Your task to perform on an android device: uninstall "Skype" Image 0: 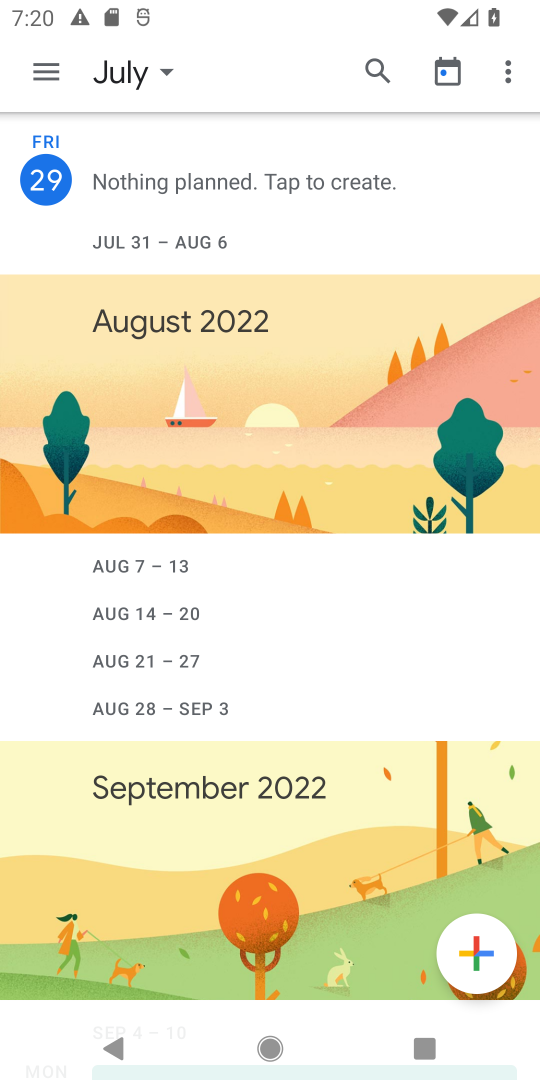
Step 0: press back button
Your task to perform on an android device: uninstall "Skype" Image 1: 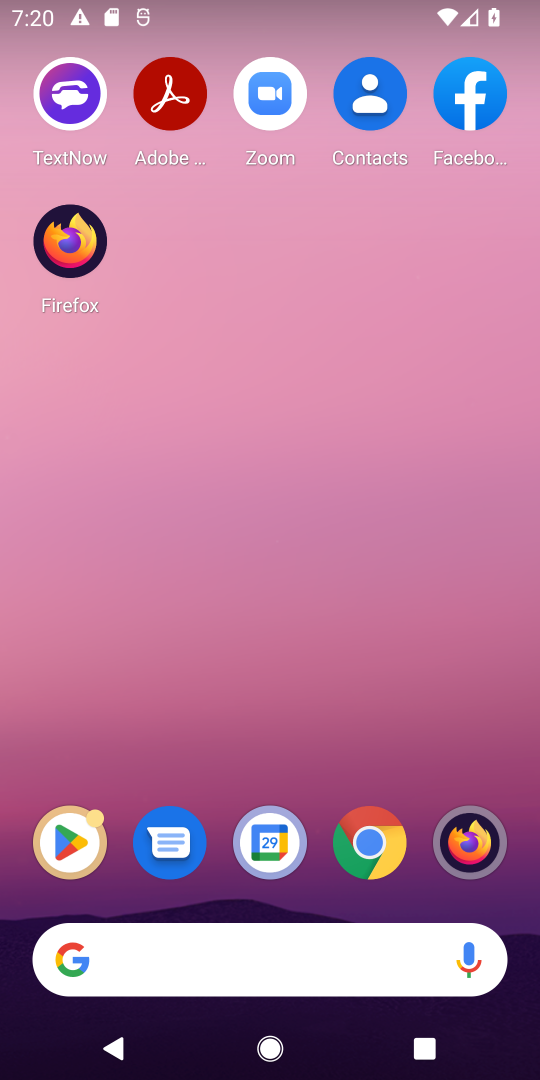
Step 1: click (313, 297)
Your task to perform on an android device: uninstall "Skype" Image 2: 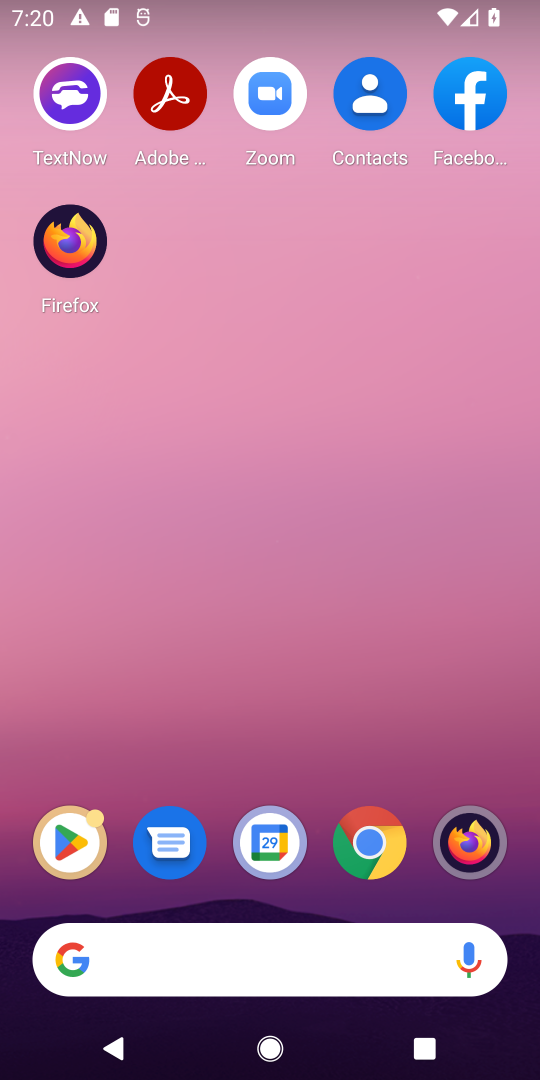
Step 2: drag from (402, 777) to (386, 352)
Your task to perform on an android device: uninstall "Skype" Image 3: 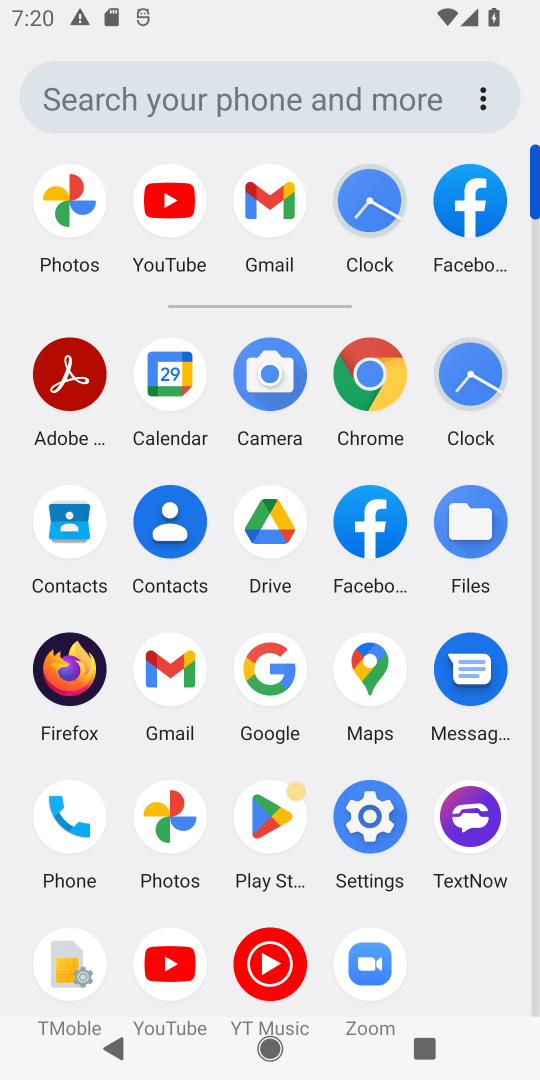
Step 3: click (260, 813)
Your task to perform on an android device: uninstall "Skype" Image 4: 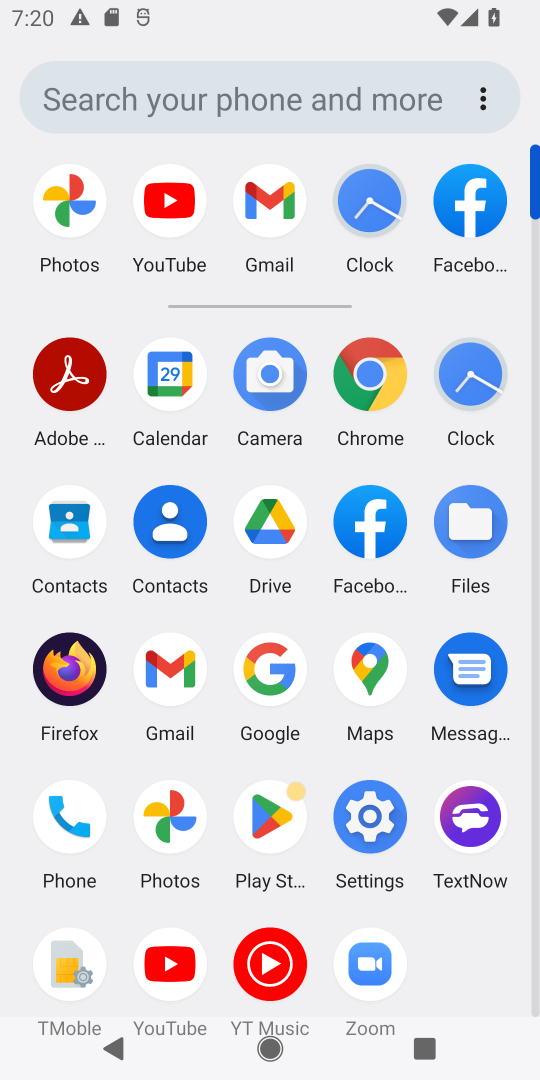
Step 4: click (264, 806)
Your task to perform on an android device: uninstall "Skype" Image 5: 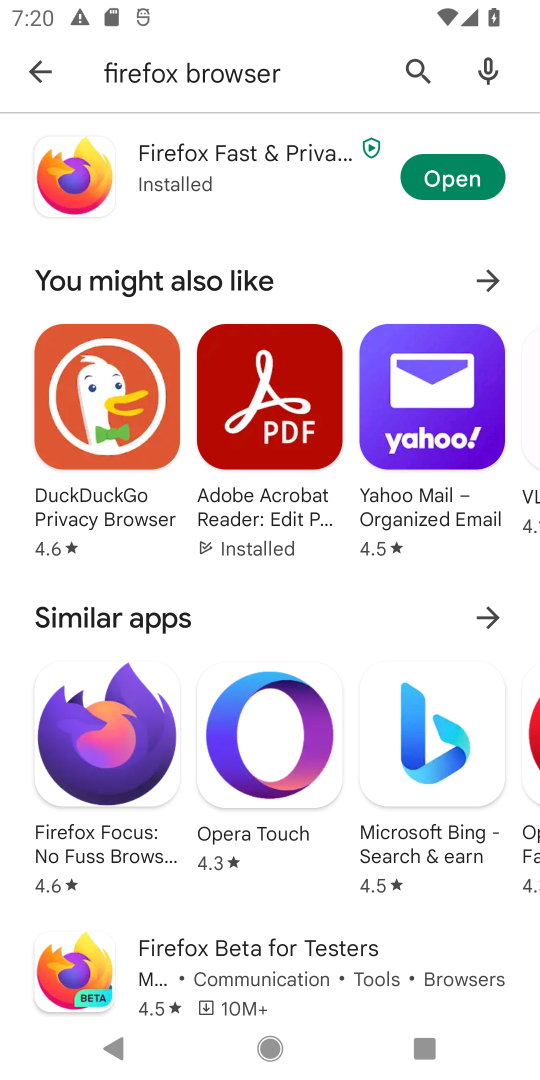
Step 5: click (37, 73)
Your task to perform on an android device: uninstall "Skype" Image 6: 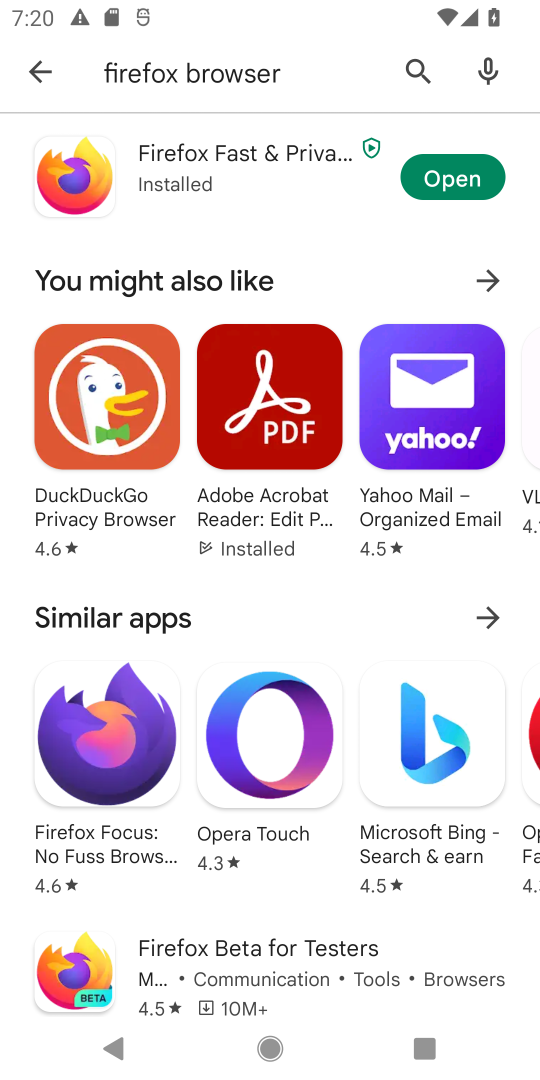
Step 6: click (33, 69)
Your task to perform on an android device: uninstall "Skype" Image 7: 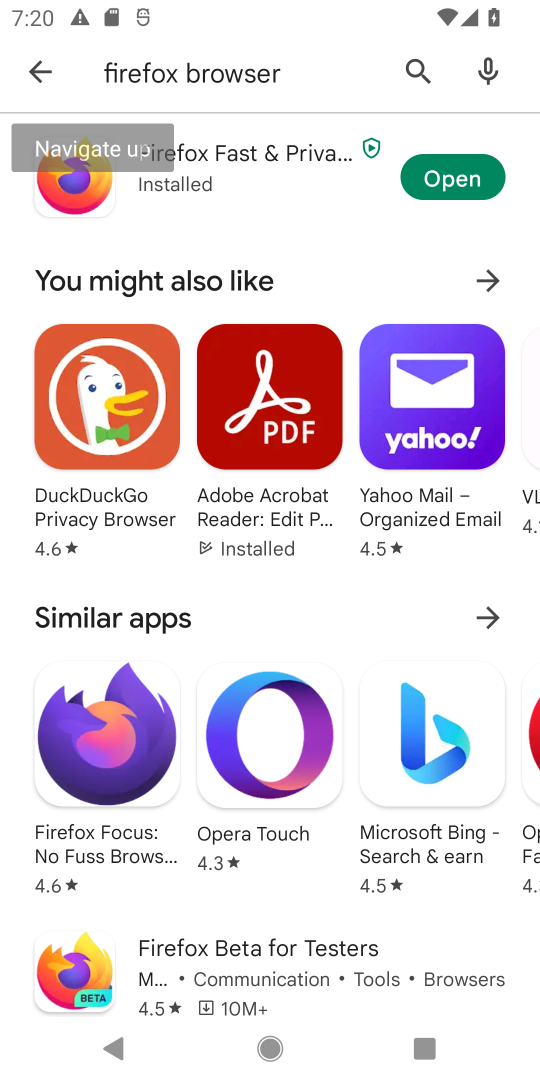
Step 7: click (286, 65)
Your task to perform on an android device: uninstall "Skype" Image 8: 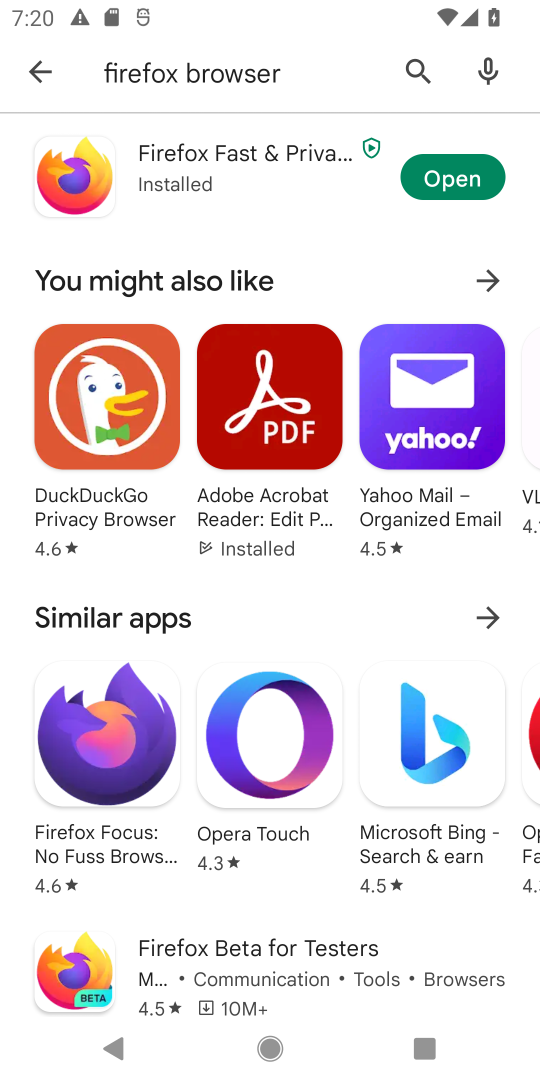
Step 8: click (281, 69)
Your task to perform on an android device: uninstall "Skype" Image 9: 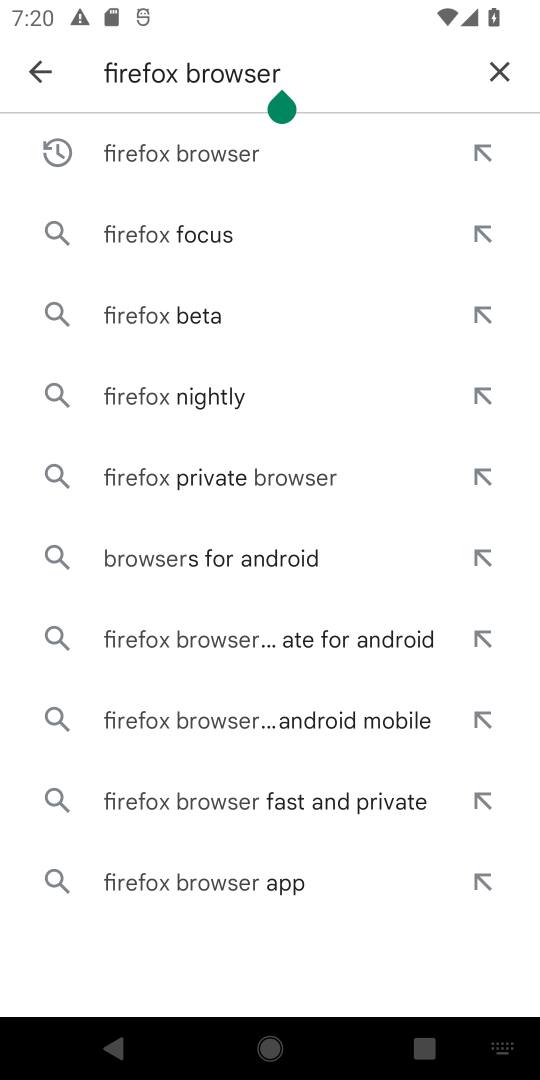
Step 9: click (488, 54)
Your task to perform on an android device: uninstall "Skype" Image 10: 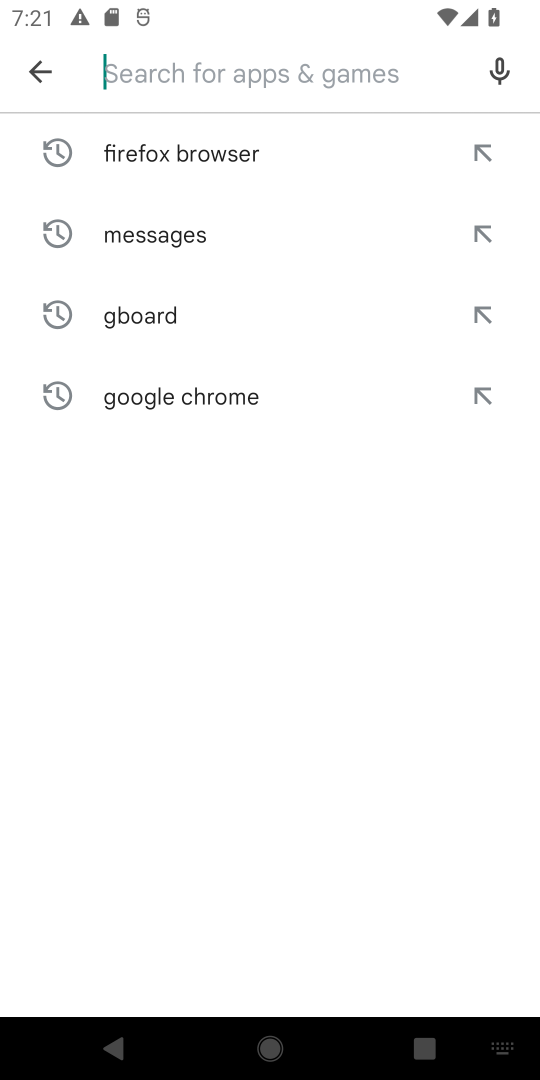
Step 10: type "uninstall skype"
Your task to perform on an android device: uninstall "Skype" Image 11: 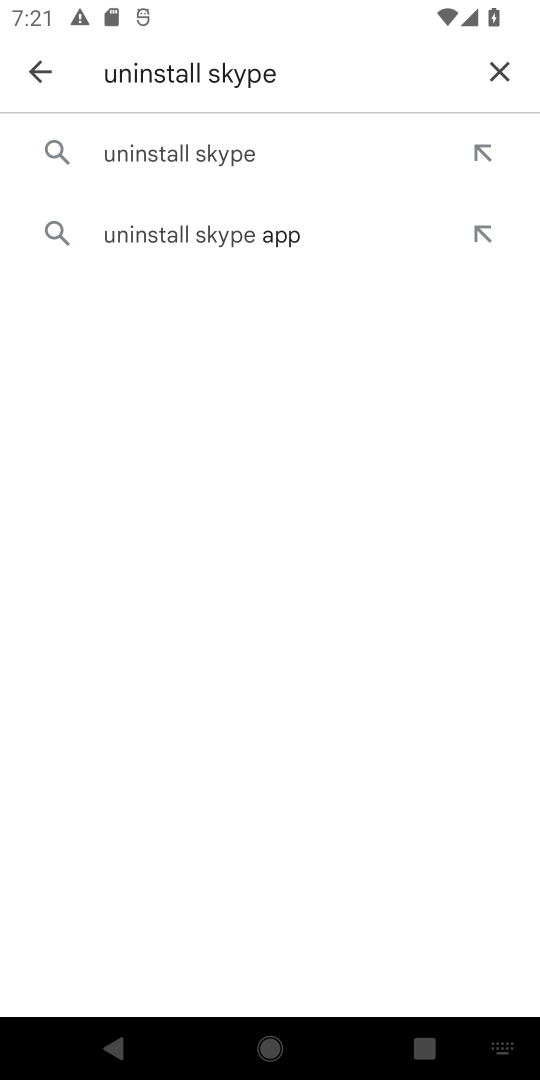
Step 11: click (224, 159)
Your task to perform on an android device: uninstall "Skype" Image 12: 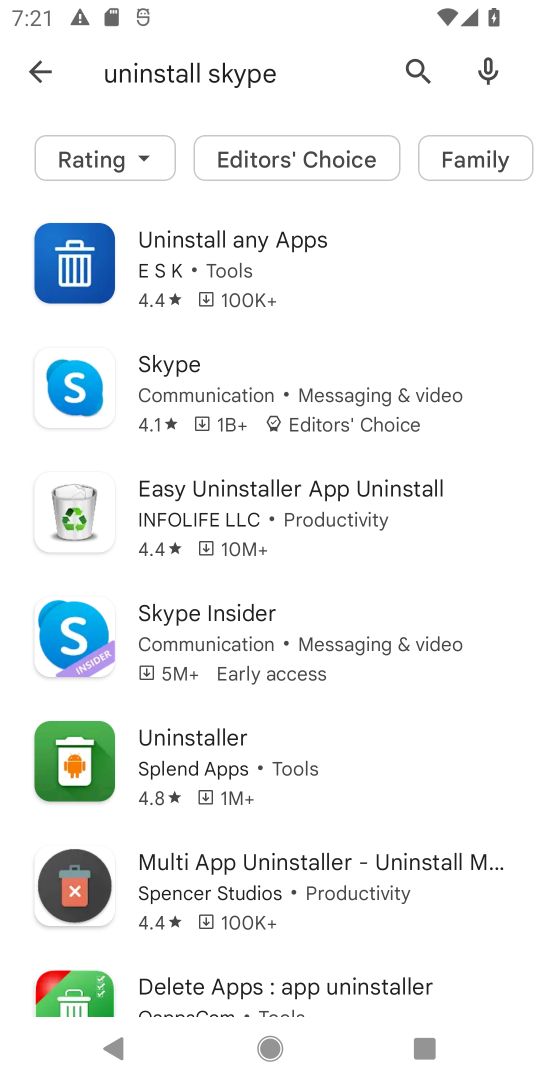
Step 12: click (31, 68)
Your task to perform on an android device: uninstall "Skype" Image 13: 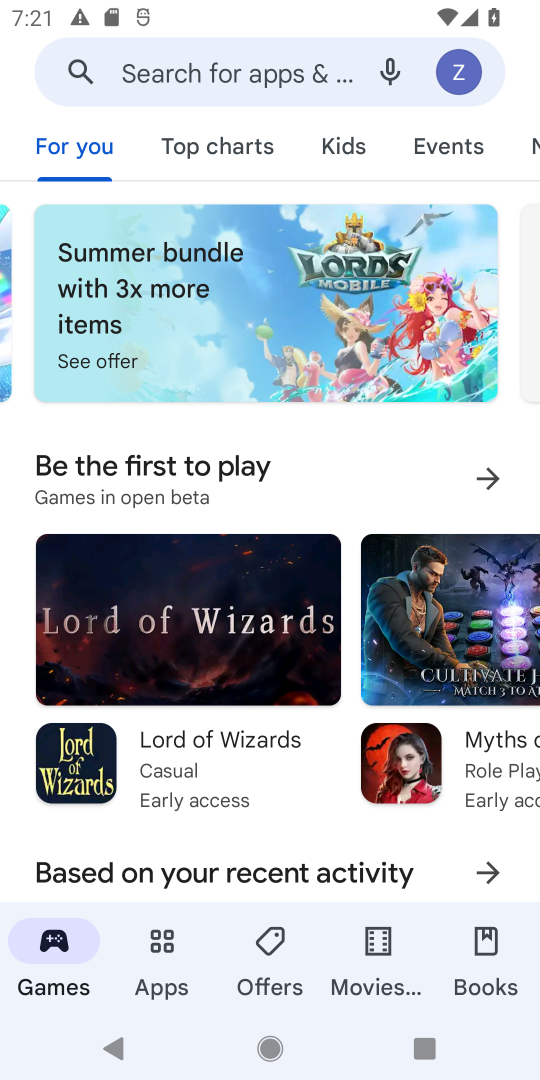
Step 13: click (173, 90)
Your task to perform on an android device: uninstall "Skype" Image 14: 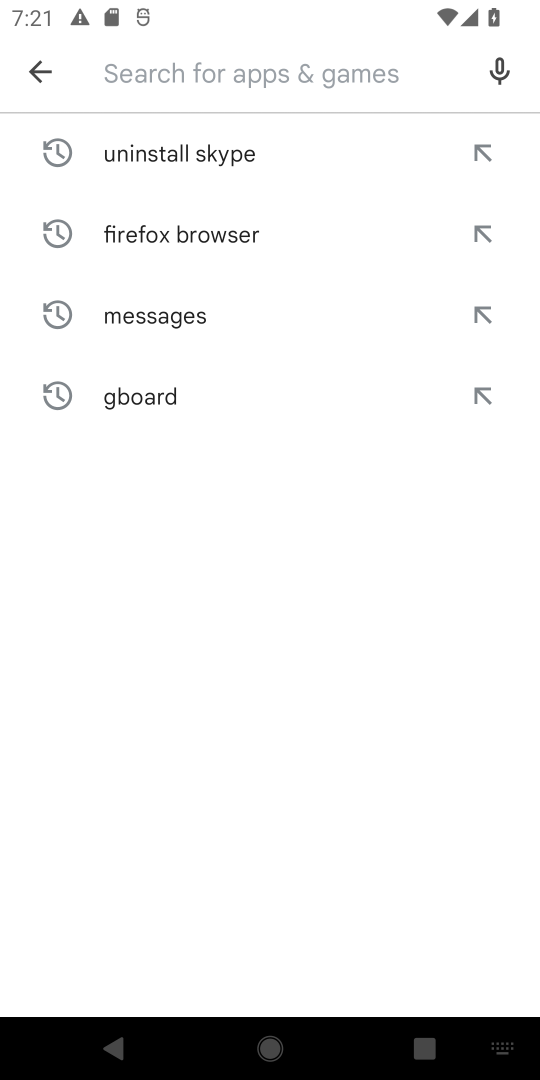
Step 14: type "skype"
Your task to perform on an android device: uninstall "Skype" Image 15: 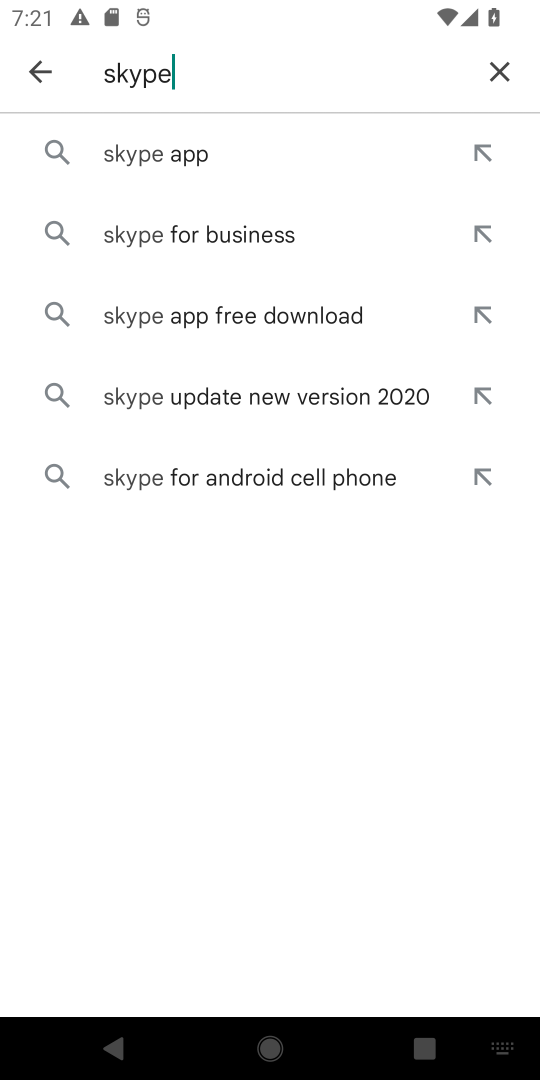
Step 15: click (147, 155)
Your task to perform on an android device: uninstall "Skype" Image 16: 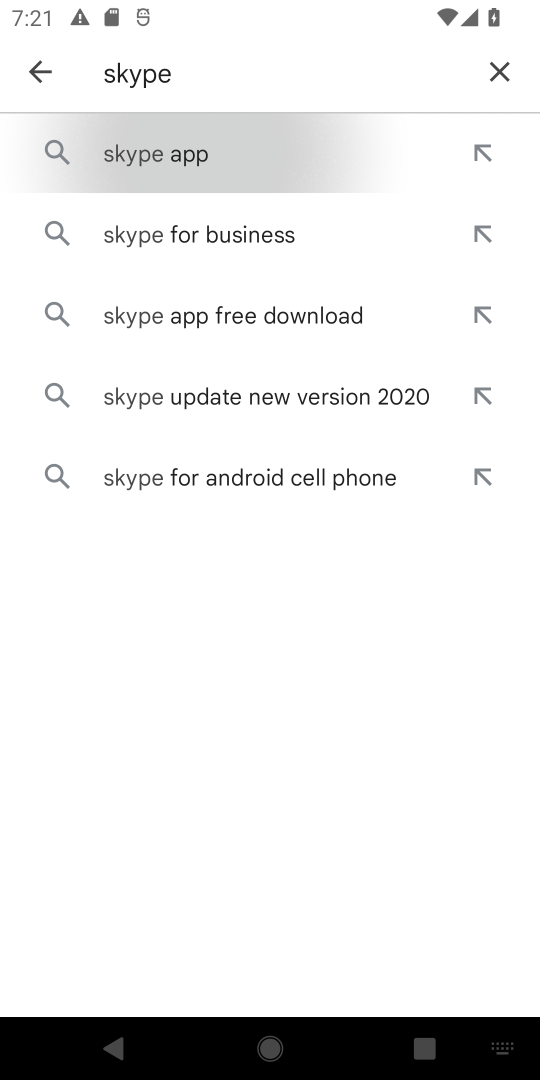
Step 16: click (148, 153)
Your task to perform on an android device: uninstall "Skype" Image 17: 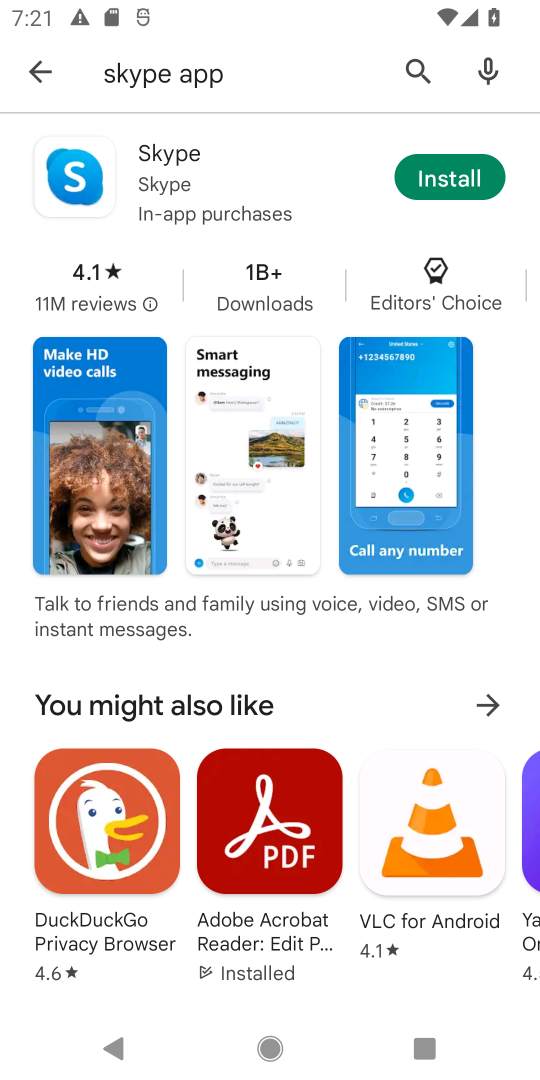
Step 17: task complete